Your task to perform on an android device: turn pop-ups on in chrome Image 0: 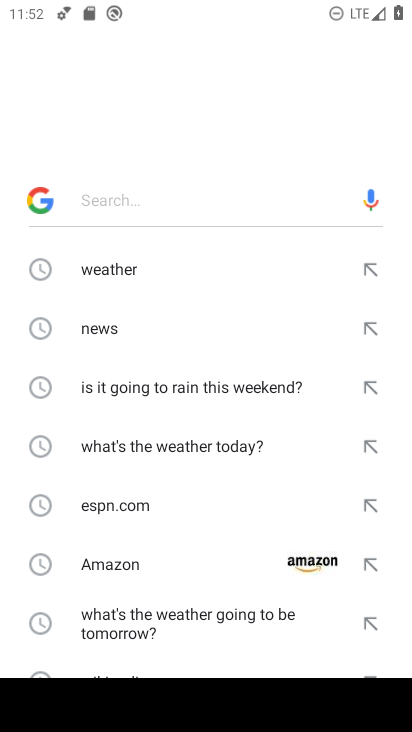
Step 0: press home button
Your task to perform on an android device: turn pop-ups on in chrome Image 1: 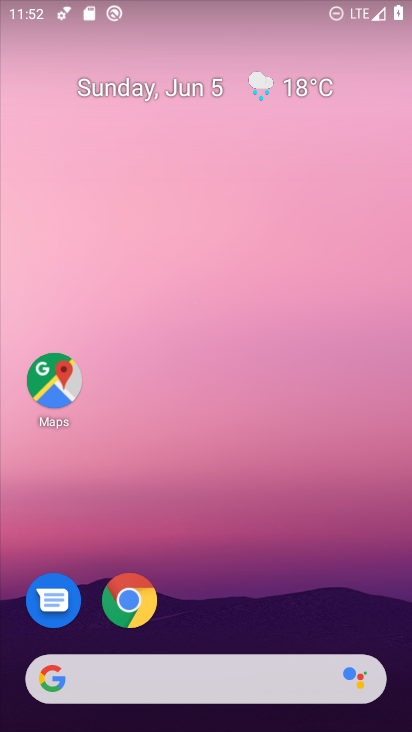
Step 1: click (146, 603)
Your task to perform on an android device: turn pop-ups on in chrome Image 2: 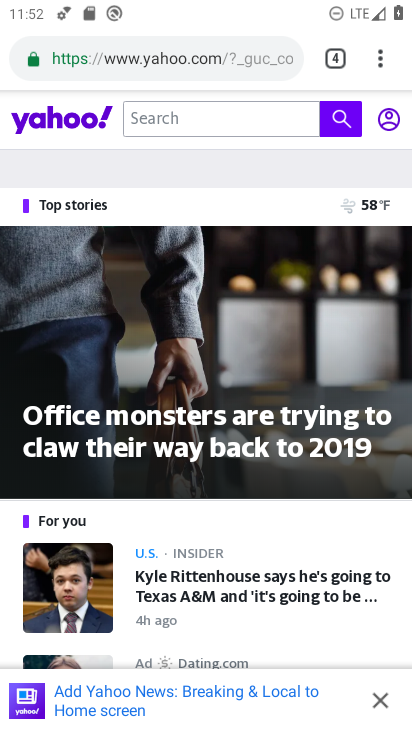
Step 2: drag from (374, 64) to (194, 625)
Your task to perform on an android device: turn pop-ups on in chrome Image 3: 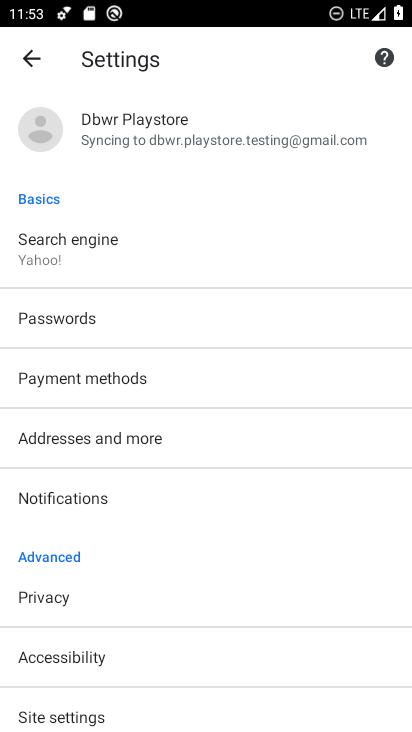
Step 3: drag from (181, 628) to (273, 267)
Your task to perform on an android device: turn pop-ups on in chrome Image 4: 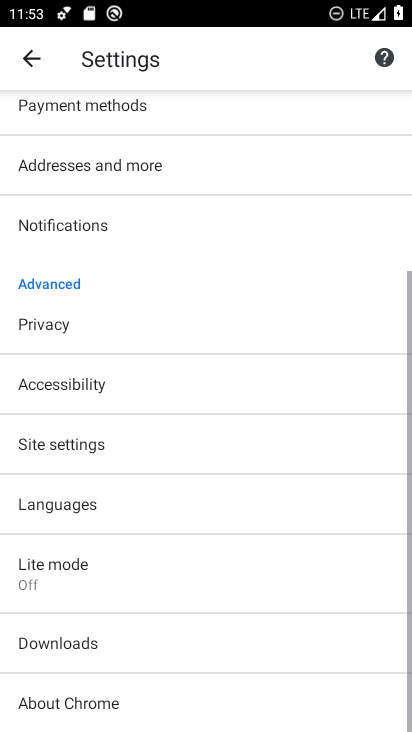
Step 4: click (107, 444)
Your task to perform on an android device: turn pop-ups on in chrome Image 5: 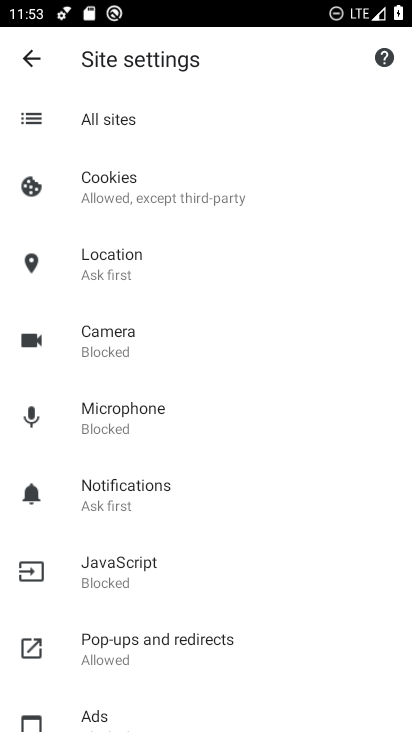
Step 5: click (228, 649)
Your task to perform on an android device: turn pop-ups on in chrome Image 6: 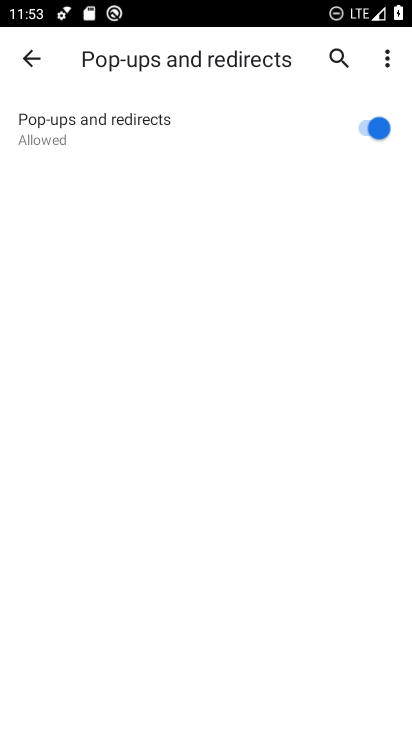
Step 6: task complete